Your task to perform on an android device: Do I have any events tomorrow? Image 0: 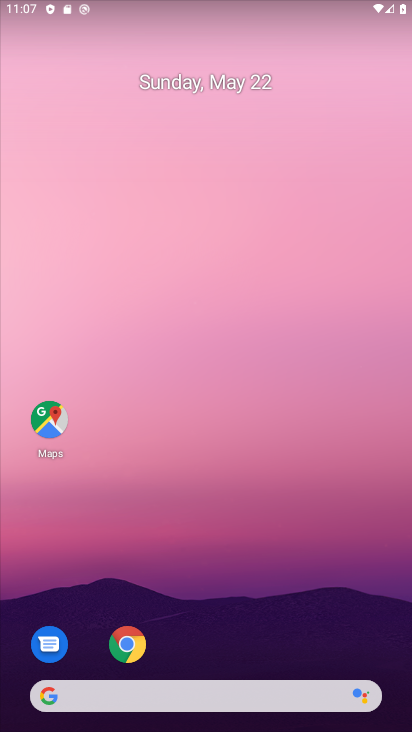
Step 0: drag from (287, 641) to (220, 28)
Your task to perform on an android device: Do I have any events tomorrow? Image 1: 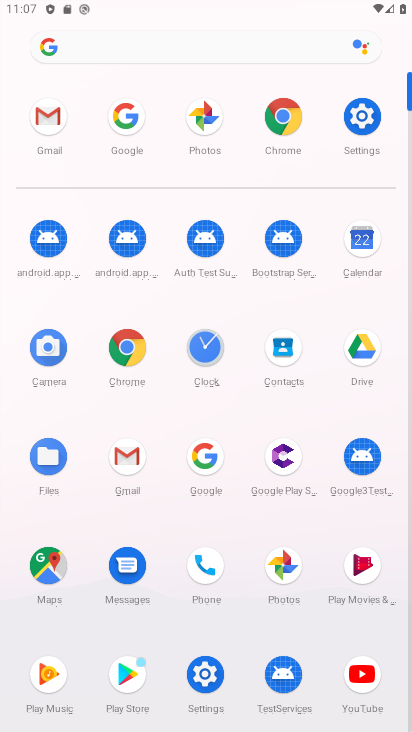
Step 1: click (369, 241)
Your task to perform on an android device: Do I have any events tomorrow? Image 2: 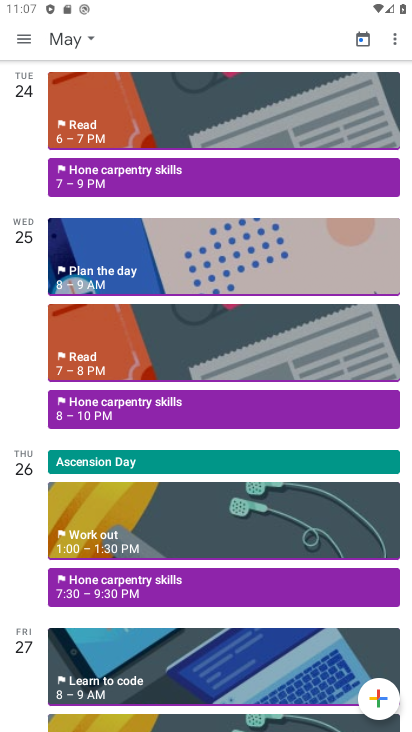
Step 2: task complete